Your task to perform on an android device: What's a good restaurant in Boston? Image 0: 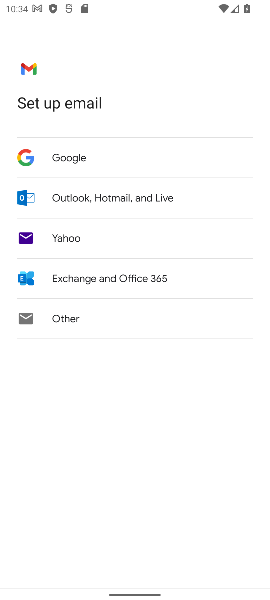
Step 0: press home button
Your task to perform on an android device: What's a good restaurant in Boston? Image 1: 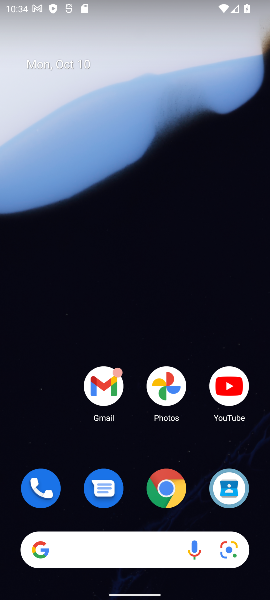
Step 1: drag from (136, 529) to (140, 31)
Your task to perform on an android device: What's a good restaurant in Boston? Image 2: 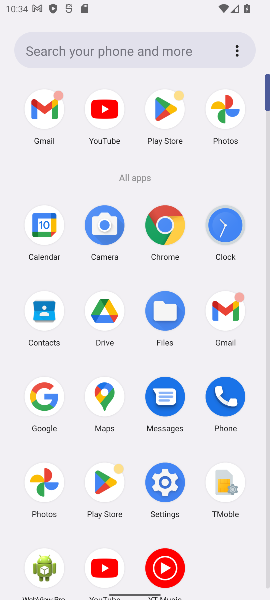
Step 2: click (163, 228)
Your task to perform on an android device: What's a good restaurant in Boston? Image 3: 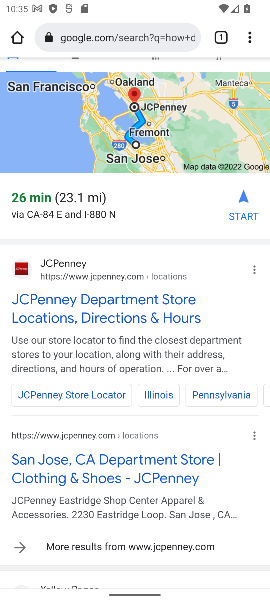
Step 3: drag from (251, 44) to (136, 74)
Your task to perform on an android device: What's a good restaurant in Boston? Image 4: 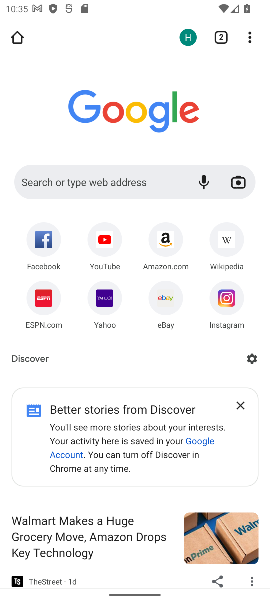
Step 4: click (101, 184)
Your task to perform on an android device: What's a good restaurant in Boston? Image 5: 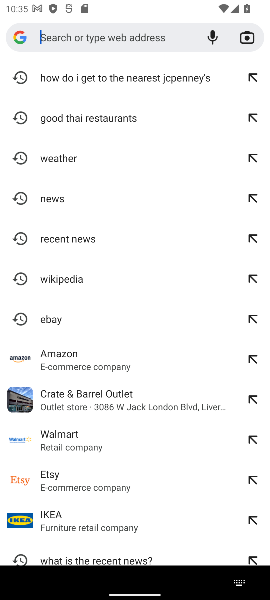
Step 5: type "What's a good restaurant in Boston?"
Your task to perform on an android device: What's a good restaurant in Boston? Image 6: 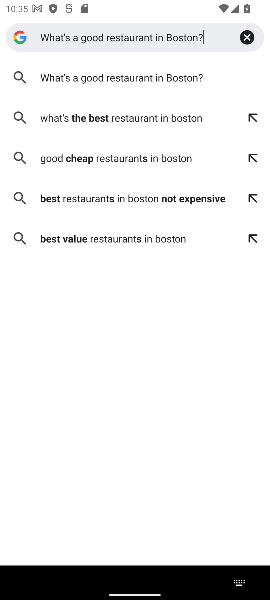
Step 6: type ""
Your task to perform on an android device: What's a good restaurant in Boston? Image 7: 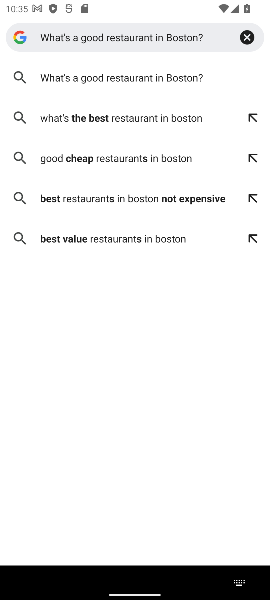
Step 7: click (141, 78)
Your task to perform on an android device: What's a good restaurant in Boston? Image 8: 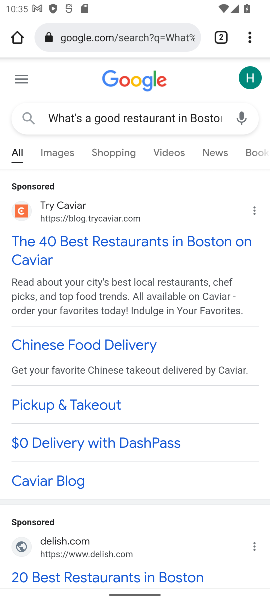
Step 8: task complete